Your task to perform on an android device: stop showing notifications on the lock screen Image 0: 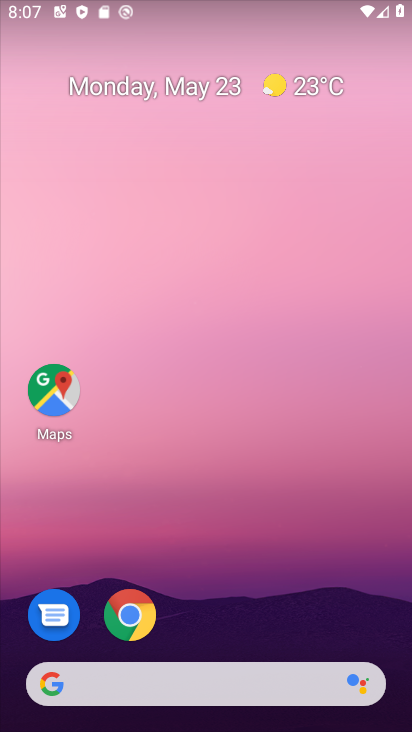
Step 0: drag from (278, 586) to (214, 55)
Your task to perform on an android device: stop showing notifications on the lock screen Image 1: 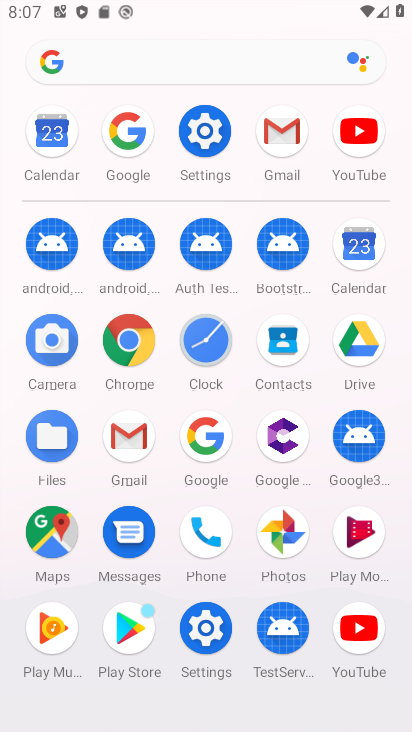
Step 1: click (205, 130)
Your task to perform on an android device: stop showing notifications on the lock screen Image 2: 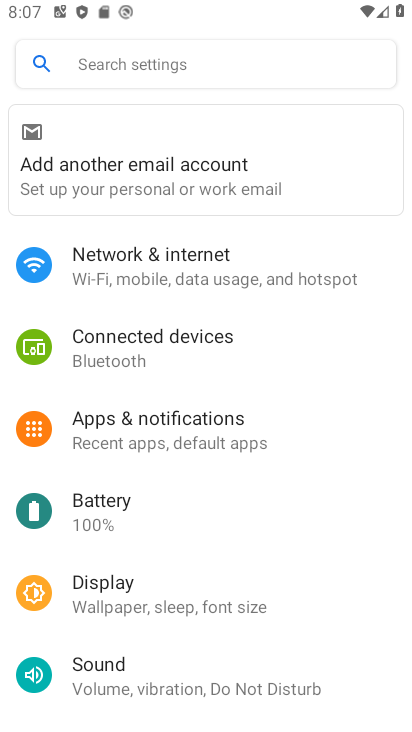
Step 2: click (214, 427)
Your task to perform on an android device: stop showing notifications on the lock screen Image 3: 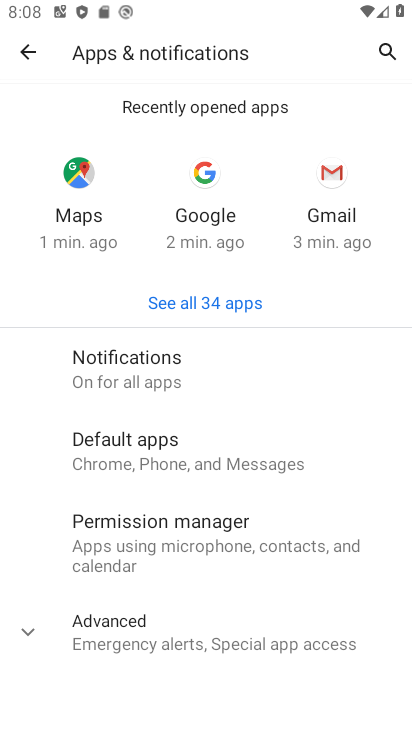
Step 3: click (157, 375)
Your task to perform on an android device: stop showing notifications on the lock screen Image 4: 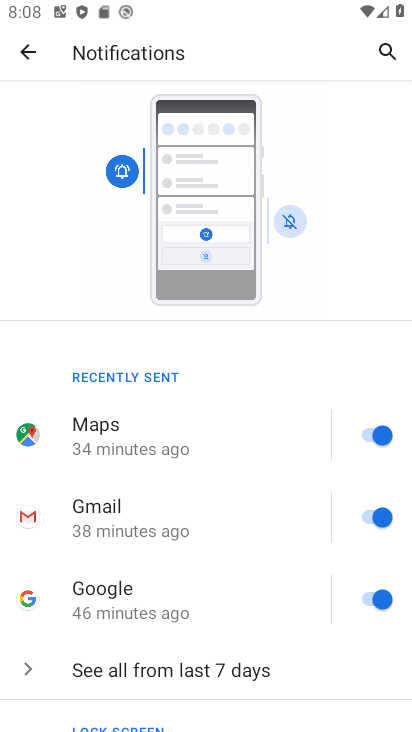
Step 4: drag from (145, 486) to (197, 393)
Your task to perform on an android device: stop showing notifications on the lock screen Image 5: 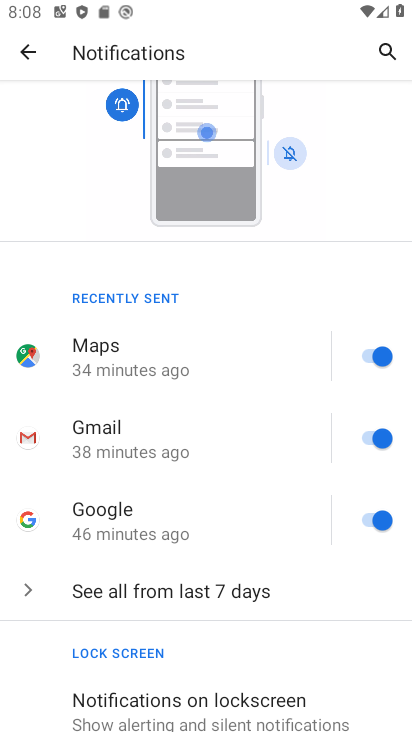
Step 5: drag from (160, 487) to (214, 404)
Your task to perform on an android device: stop showing notifications on the lock screen Image 6: 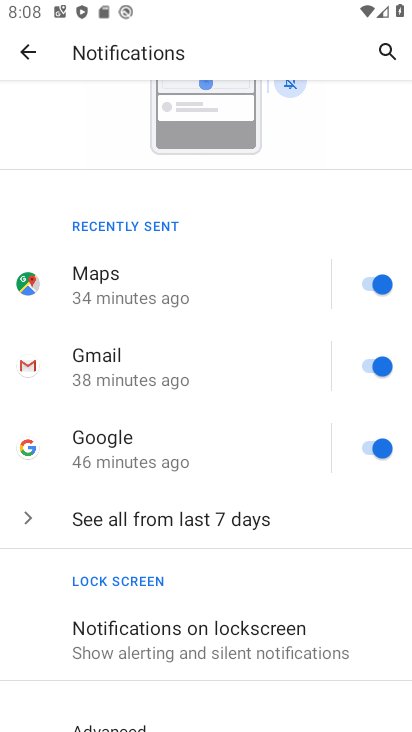
Step 6: drag from (202, 567) to (216, 465)
Your task to perform on an android device: stop showing notifications on the lock screen Image 7: 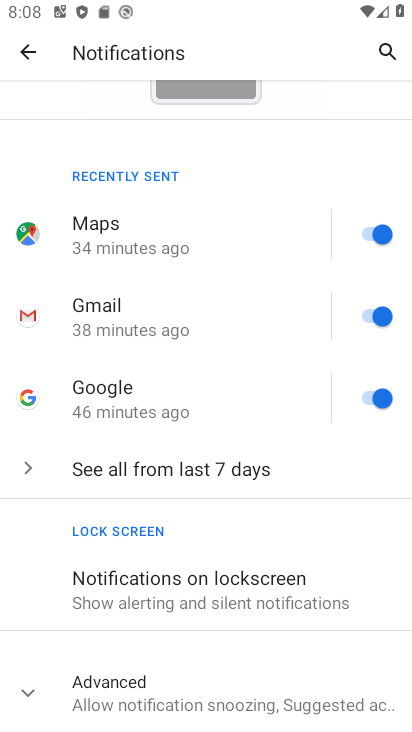
Step 7: click (199, 579)
Your task to perform on an android device: stop showing notifications on the lock screen Image 8: 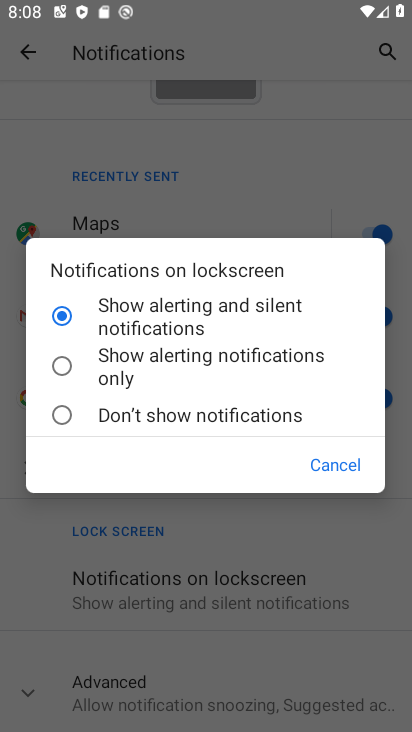
Step 8: click (64, 415)
Your task to perform on an android device: stop showing notifications on the lock screen Image 9: 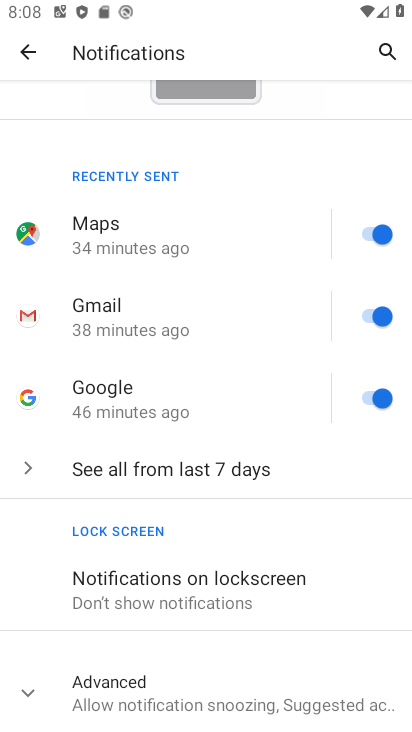
Step 9: task complete